Your task to perform on an android device: turn off javascript in the chrome app Image 0: 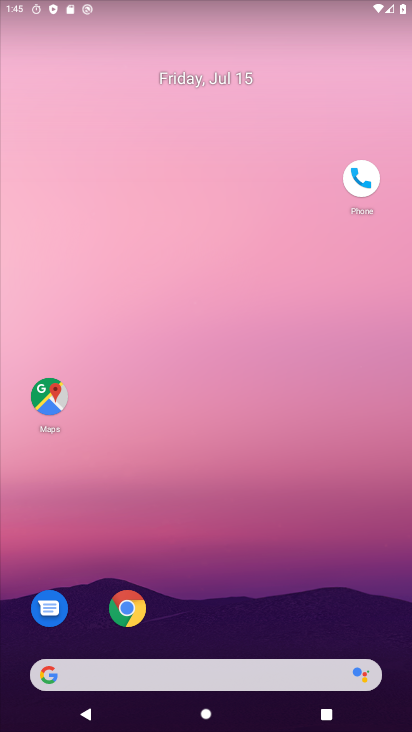
Step 0: drag from (185, 626) to (201, 185)
Your task to perform on an android device: turn off javascript in the chrome app Image 1: 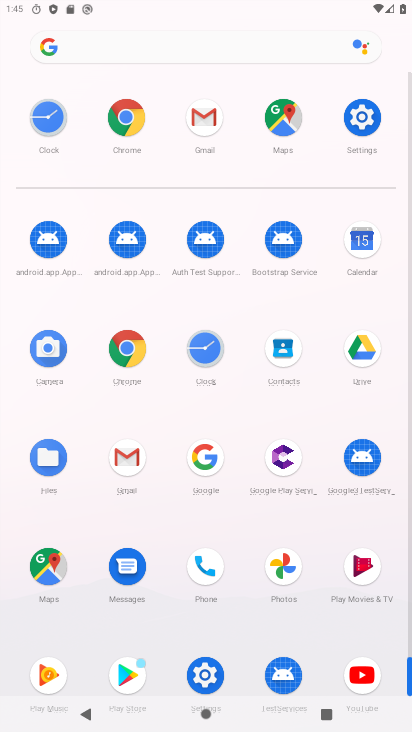
Step 1: click (127, 343)
Your task to perform on an android device: turn off javascript in the chrome app Image 2: 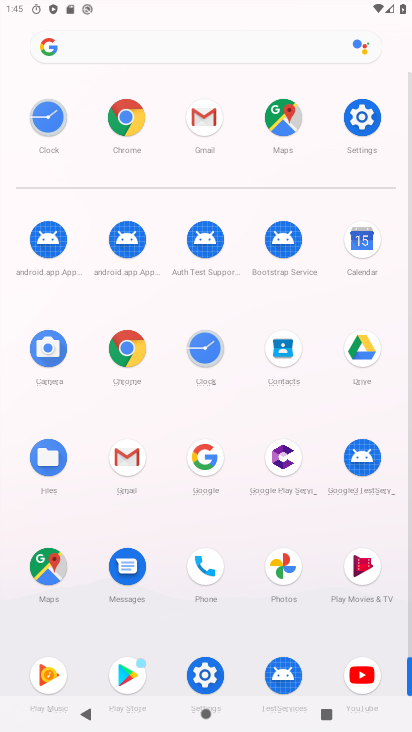
Step 2: click (127, 343)
Your task to perform on an android device: turn off javascript in the chrome app Image 3: 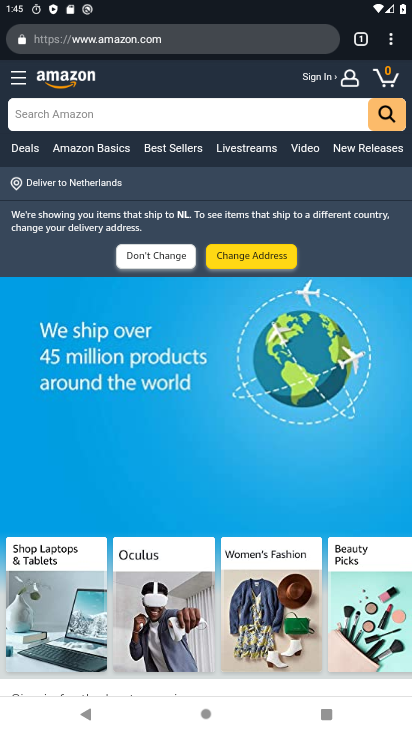
Step 3: drag from (388, 35) to (281, 472)
Your task to perform on an android device: turn off javascript in the chrome app Image 4: 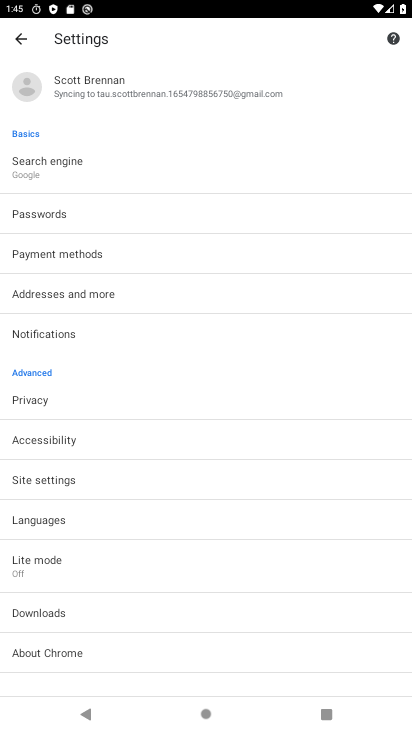
Step 4: click (45, 476)
Your task to perform on an android device: turn off javascript in the chrome app Image 5: 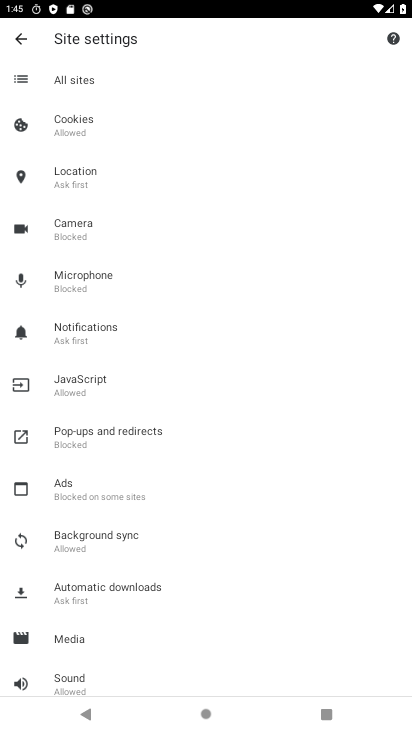
Step 5: click (83, 388)
Your task to perform on an android device: turn off javascript in the chrome app Image 6: 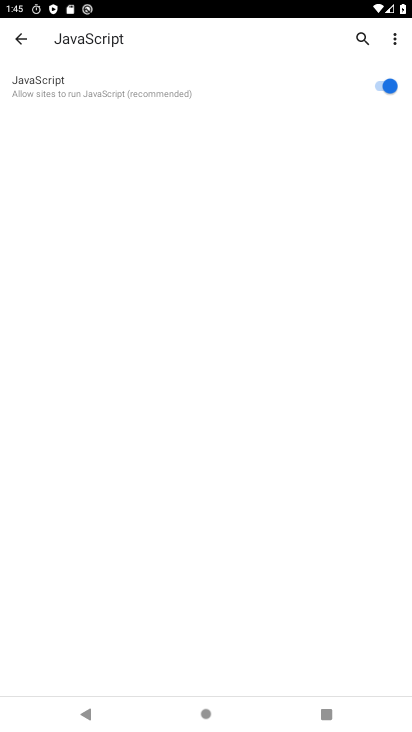
Step 6: click (384, 78)
Your task to perform on an android device: turn off javascript in the chrome app Image 7: 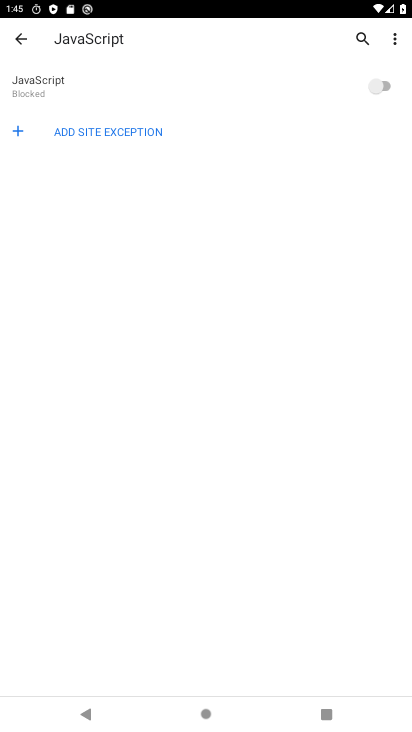
Step 7: task complete